Your task to perform on an android device: uninstall "Google Calendar" Image 0: 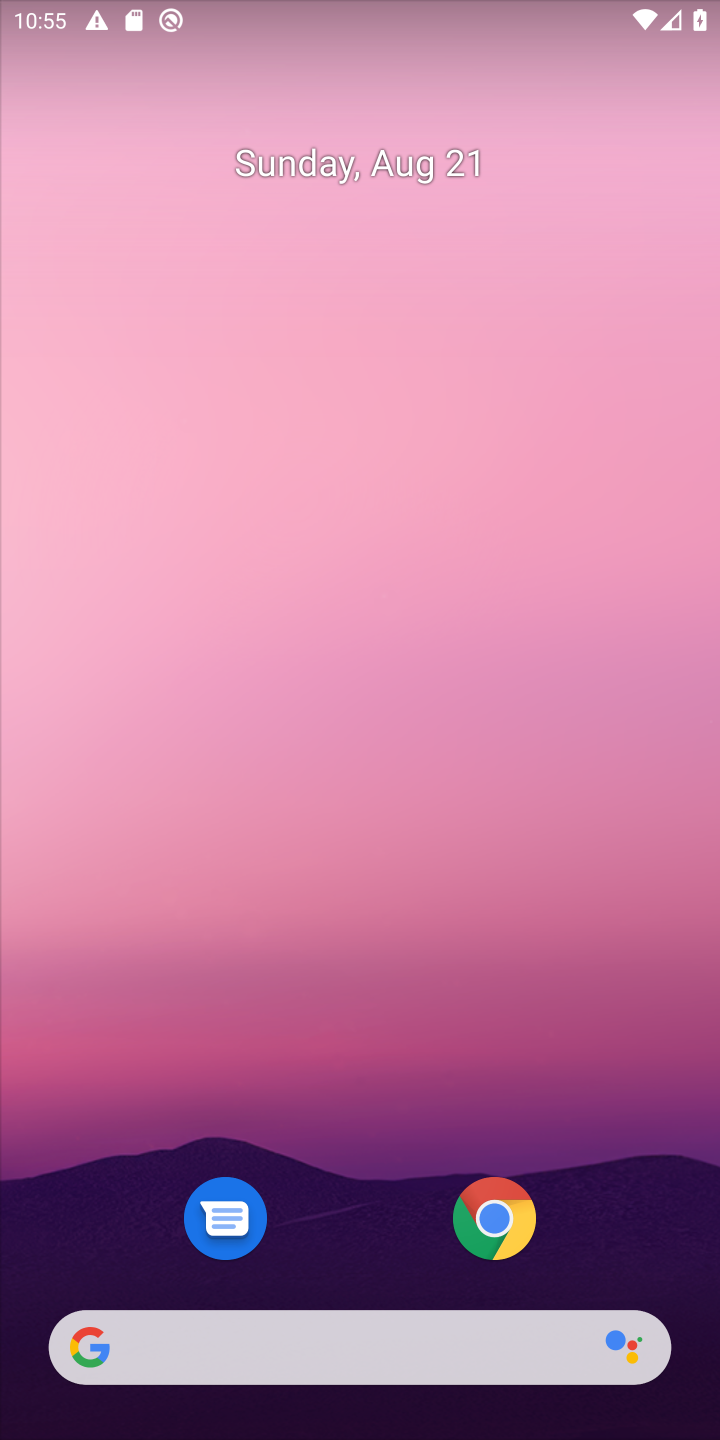
Step 0: drag from (408, 1326) to (391, 479)
Your task to perform on an android device: uninstall "Google Calendar" Image 1: 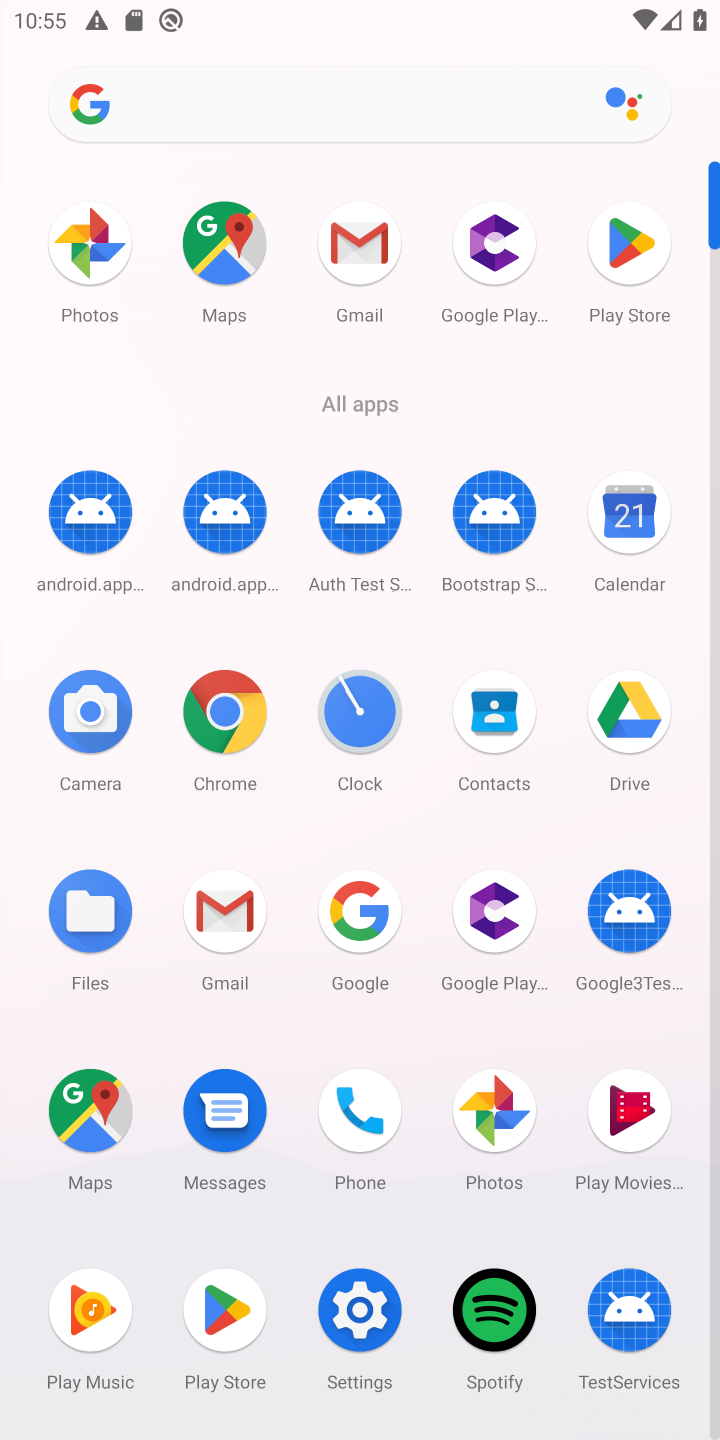
Step 1: click (615, 528)
Your task to perform on an android device: uninstall "Google Calendar" Image 2: 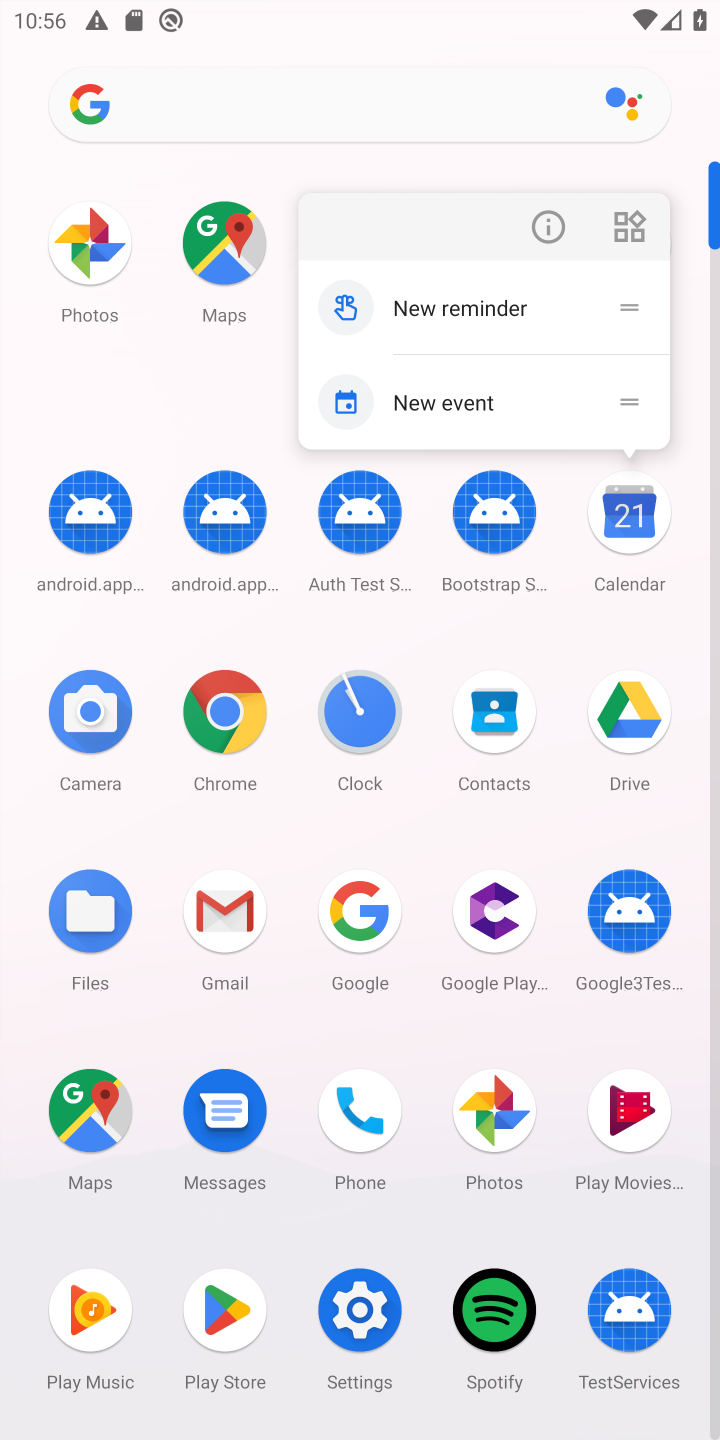
Step 2: click (158, 377)
Your task to perform on an android device: uninstall "Google Calendar" Image 3: 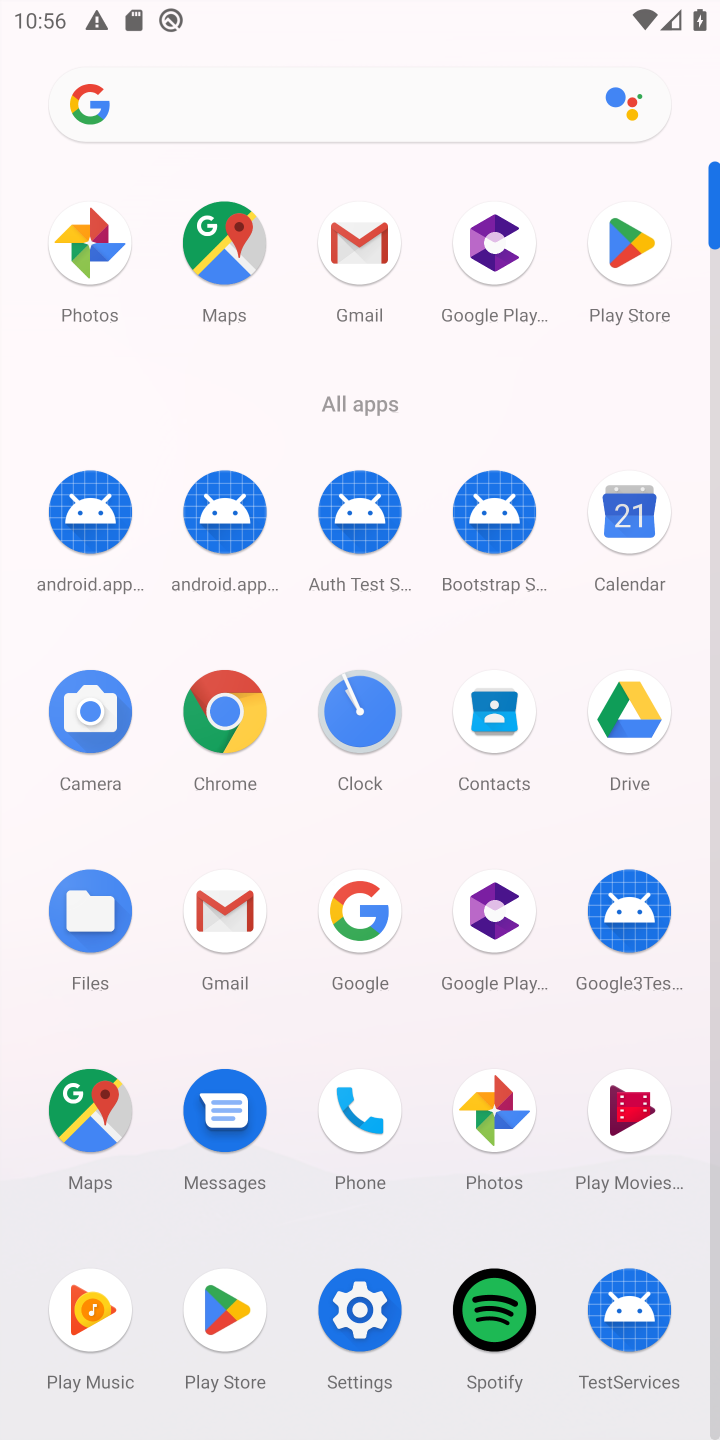
Step 3: task complete